Your task to perform on an android device: Is it going to rain this weekend? Image 0: 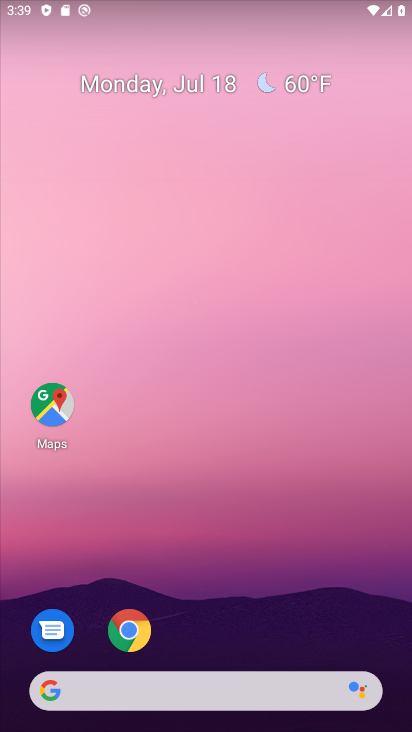
Step 0: drag from (284, 628) to (248, 175)
Your task to perform on an android device: Is it going to rain this weekend? Image 1: 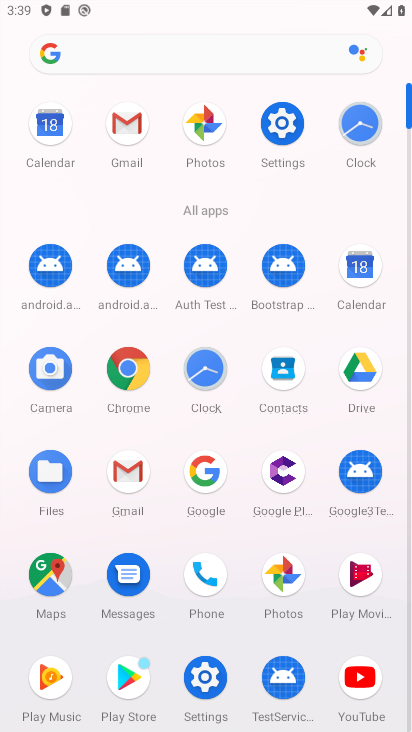
Step 1: press home button
Your task to perform on an android device: Is it going to rain this weekend? Image 2: 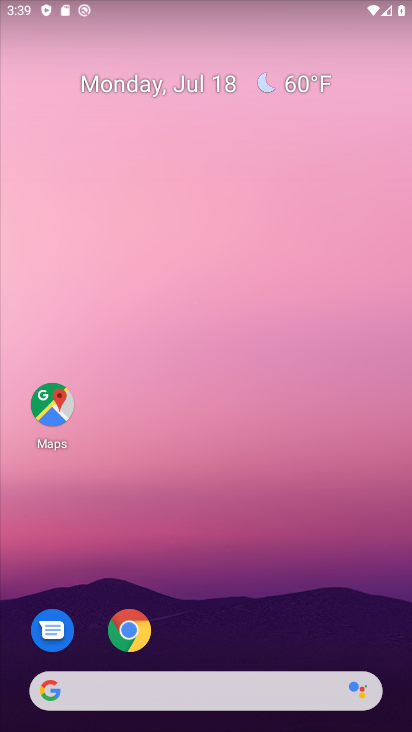
Step 2: click (316, 91)
Your task to perform on an android device: Is it going to rain this weekend? Image 3: 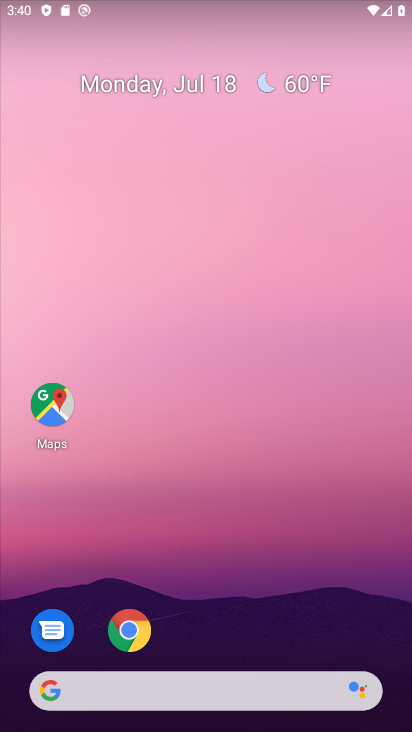
Step 3: click (307, 93)
Your task to perform on an android device: Is it going to rain this weekend? Image 4: 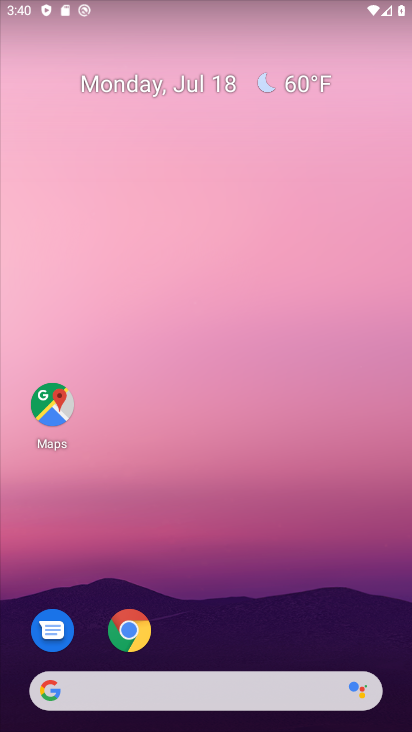
Step 4: click (318, 91)
Your task to perform on an android device: Is it going to rain this weekend? Image 5: 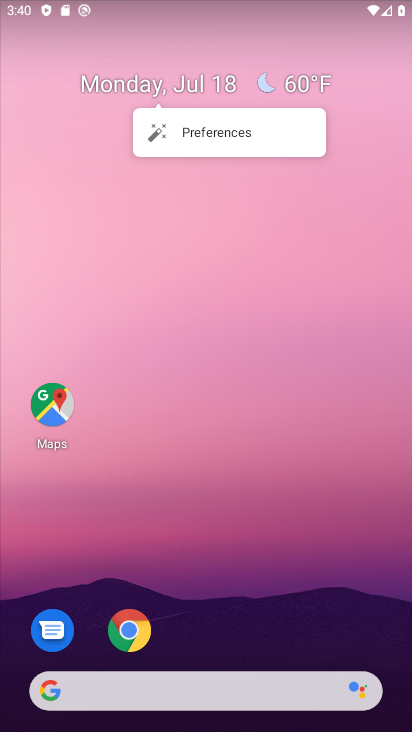
Step 5: click (318, 91)
Your task to perform on an android device: Is it going to rain this weekend? Image 6: 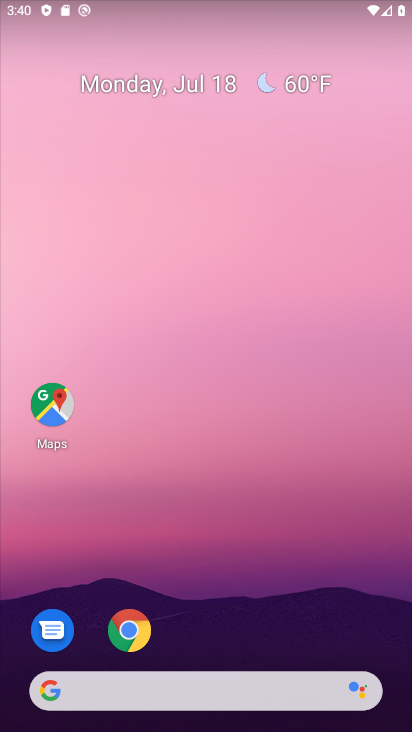
Step 6: click (318, 91)
Your task to perform on an android device: Is it going to rain this weekend? Image 7: 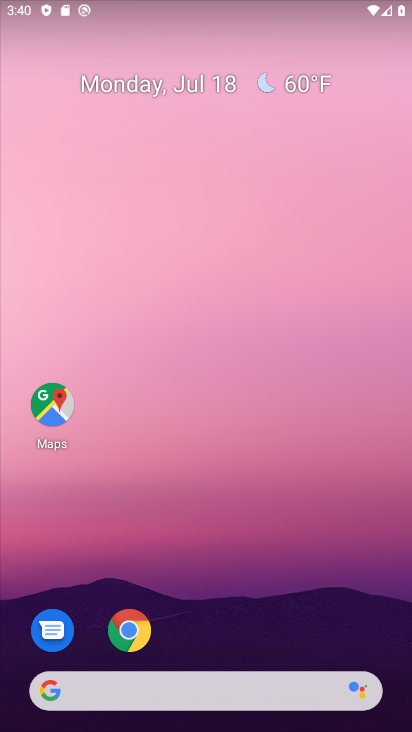
Step 7: click (318, 91)
Your task to perform on an android device: Is it going to rain this weekend? Image 8: 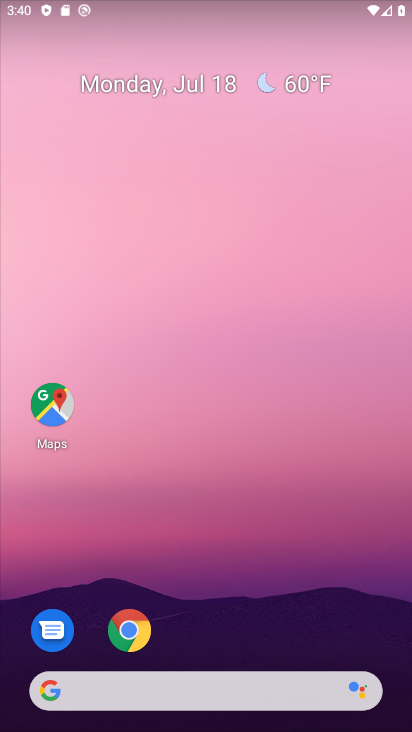
Step 8: click (297, 84)
Your task to perform on an android device: Is it going to rain this weekend? Image 9: 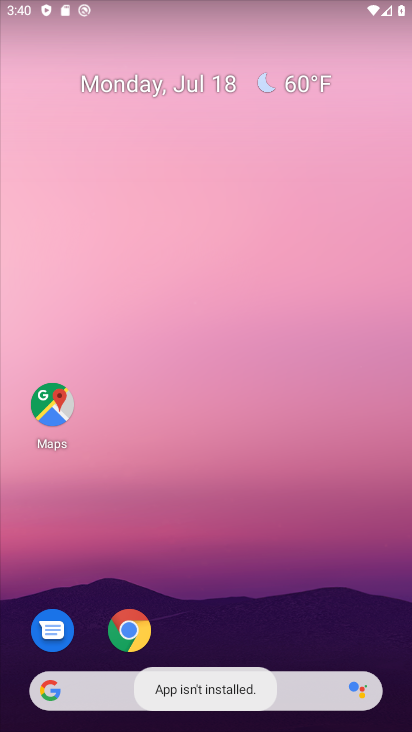
Step 9: click (297, 84)
Your task to perform on an android device: Is it going to rain this weekend? Image 10: 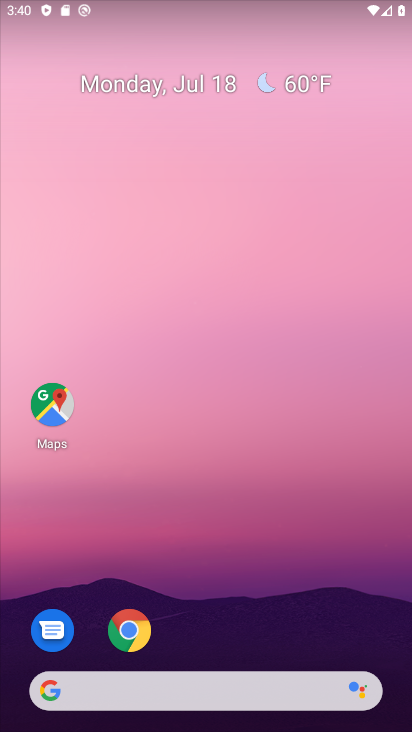
Step 10: task complete